Your task to perform on an android device: Go to notification settings Image 0: 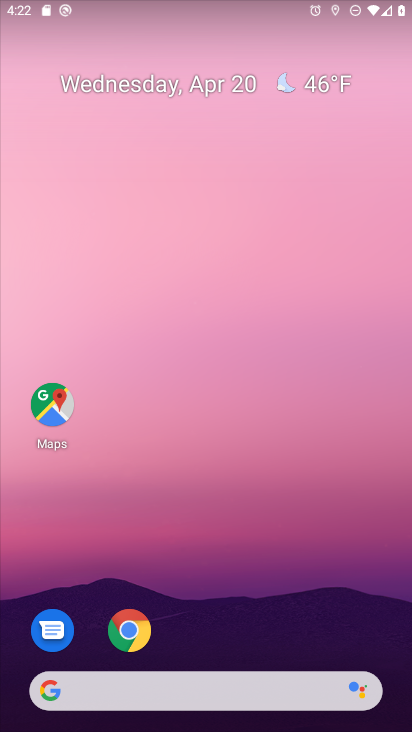
Step 0: click (248, 8)
Your task to perform on an android device: Go to notification settings Image 1: 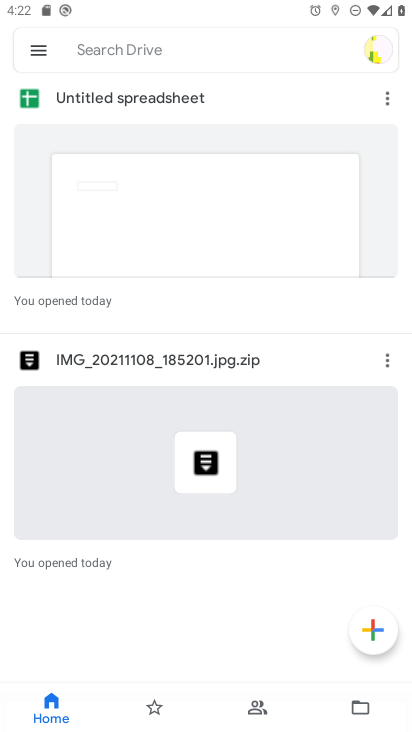
Step 1: press home button
Your task to perform on an android device: Go to notification settings Image 2: 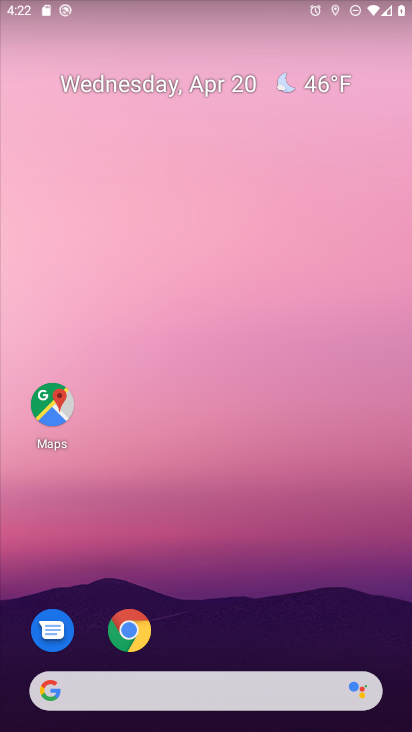
Step 2: drag from (225, 530) to (242, 11)
Your task to perform on an android device: Go to notification settings Image 3: 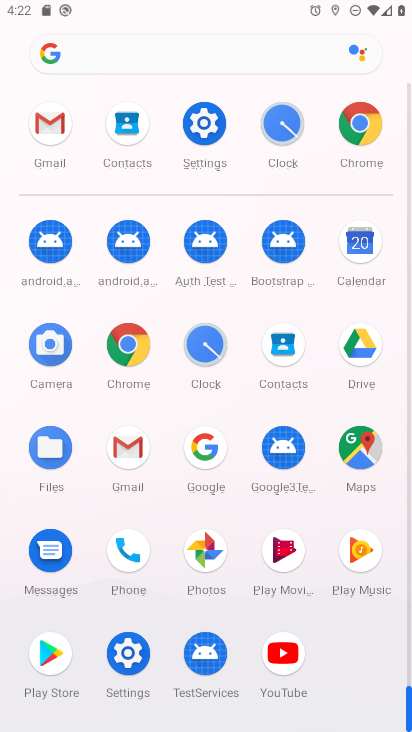
Step 3: click (119, 658)
Your task to perform on an android device: Go to notification settings Image 4: 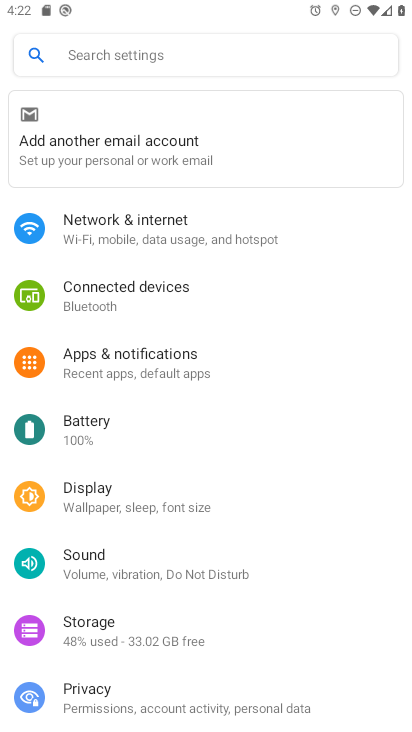
Step 4: click (173, 366)
Your task to perform on an android device: Go to notification settings Image 5: 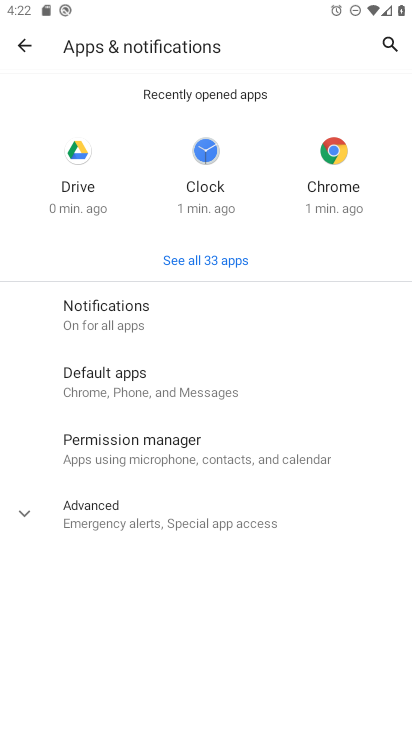
Step 5: click (176, 323)
Your task to perform on an android device: Go to notification settings Image 6: 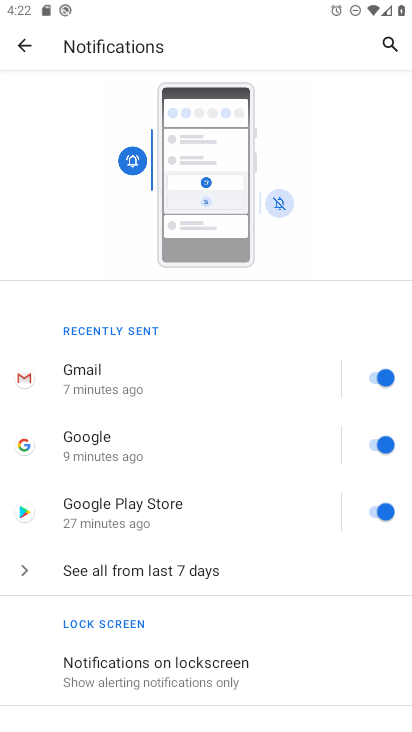
Step 6: task complete